Your task to perform on an android device: open a bookmark in the chrome app Image 0: 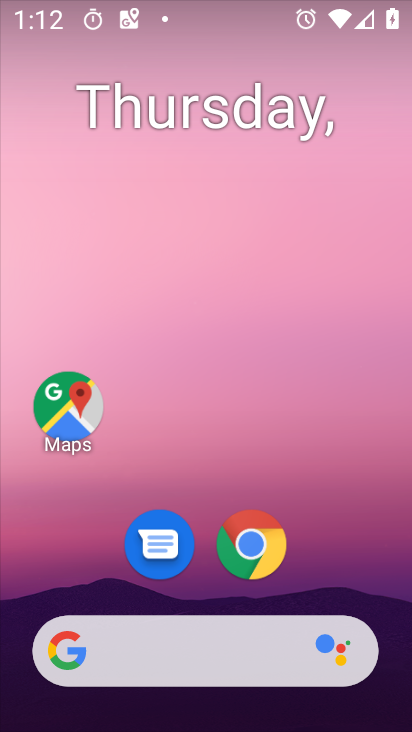
Step 0: click (244, 542)
Your task to perform on an android device: open a bookmark in the chrome app Image 1: 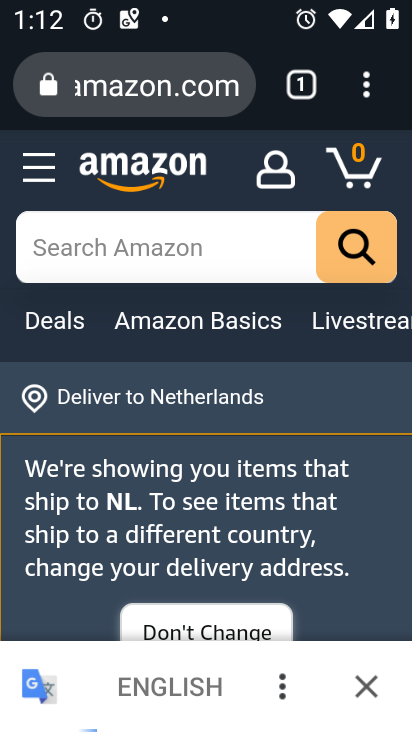
Step 1: click (353, 86)
Your task to perform on an android device: open a bookmark in the chrome app Image 2: 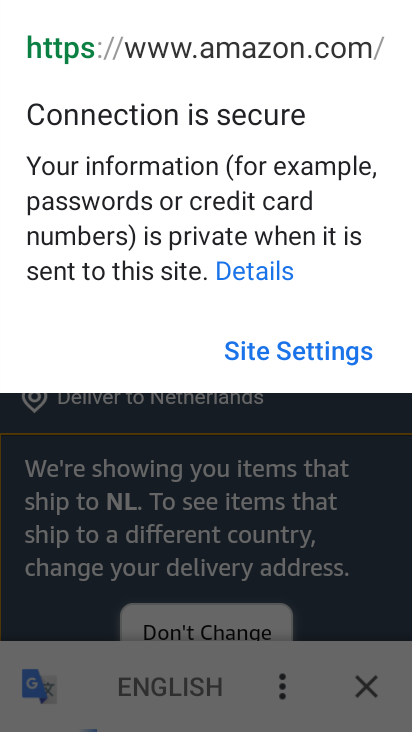
Step 2: press back button
Your task to perform on an android device: open a bookmark in the chrome app Image 3: 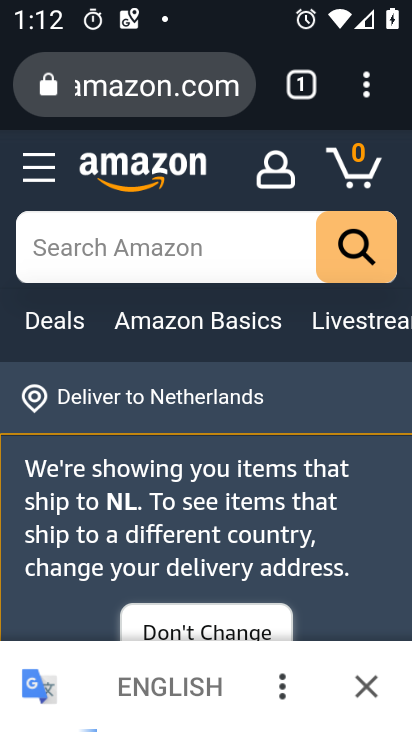
Step 3: click (372, 86)
Your task to perform on an android device: open a bookmark in the chrome app Image 4: 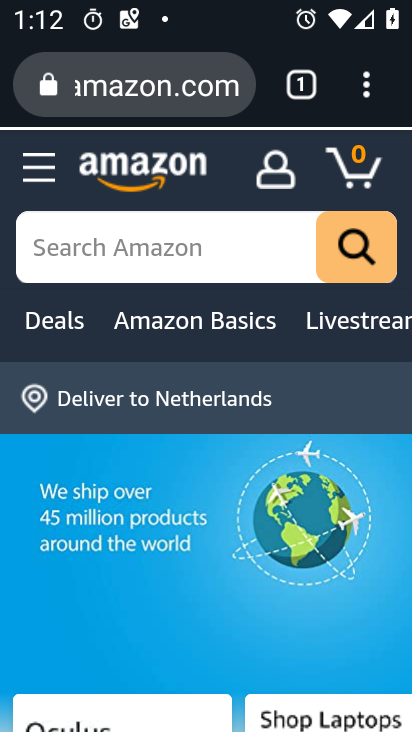
Step 4: click (361, 91)
Your task to perform on an android device: open a bookmark in the chrome app Image 5: 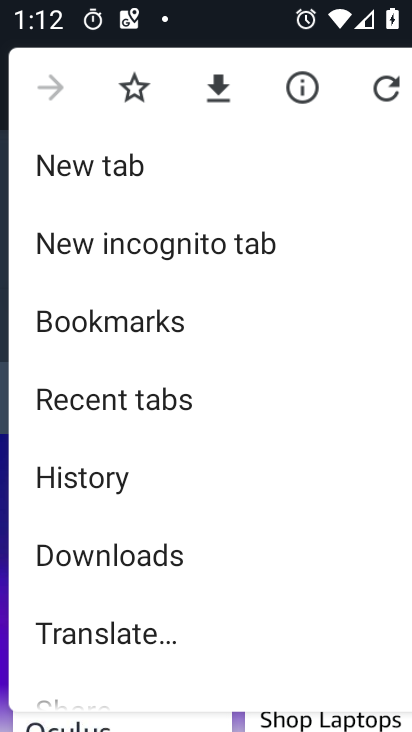
Step 5: click (161, 334)
Your task to perform on an android device: open a bookmark in the chrome app Image 6: 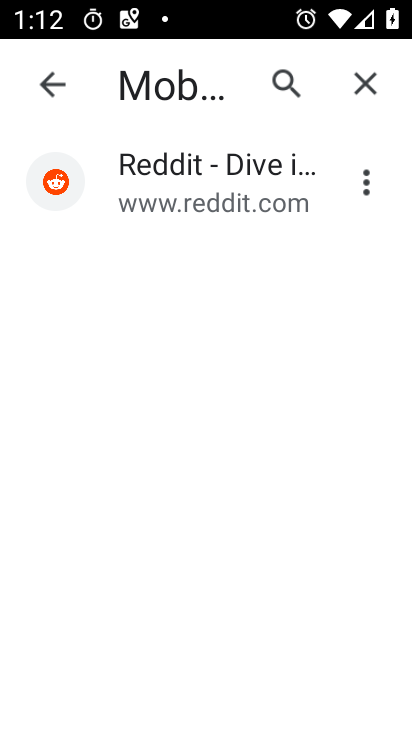
Step 6: task complete